Your task to perform on an android device: Open Chrome and go to settings Image 0: 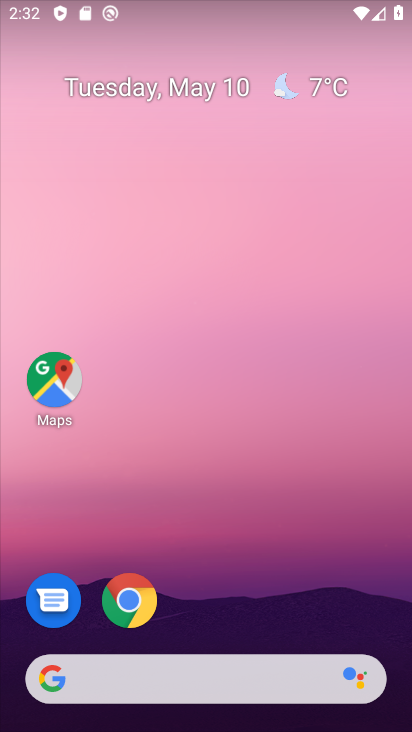
Step 0: click (146, 583)
Your task to perform on an android device: Open Chrome and go to settings Image 1: 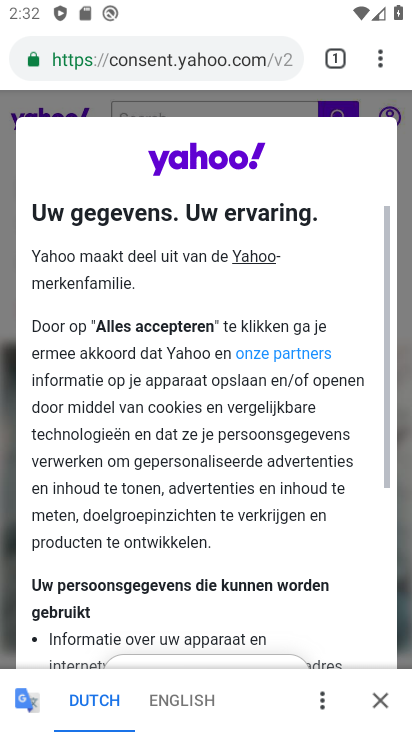
Step 1: task complete